Your task to perform on an android device: delete the emails in spam in the gmail app Image 0: 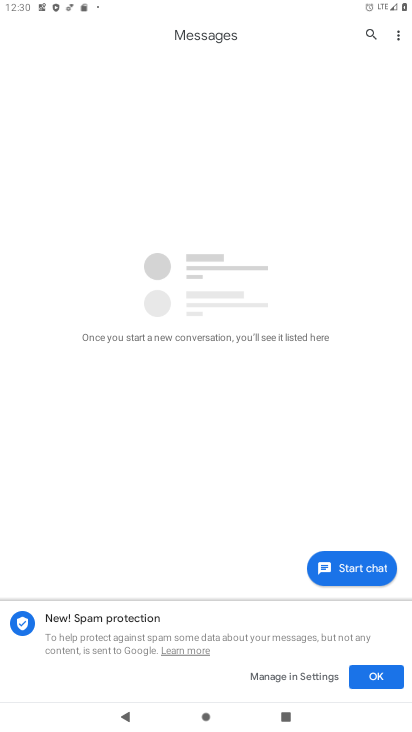
Step 0: press home button
Your task to perform on an android device: delete the emails in spam in the gmail app Image 1: 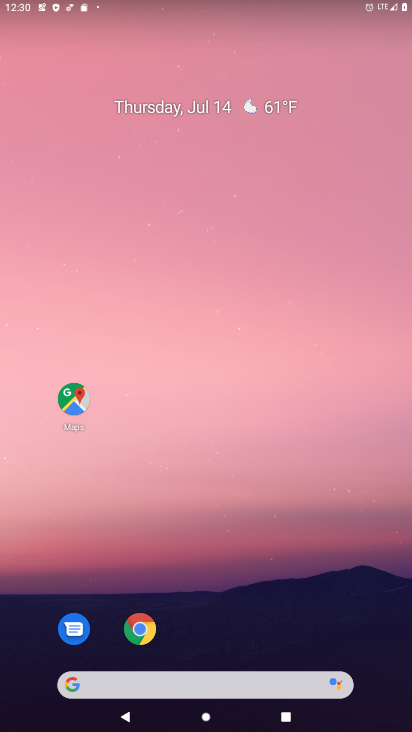
Step 1: drag from (286, 548) to (283, 102)
Your task to perform on an android device: delete the emails in spam in the gmail app Image 2: 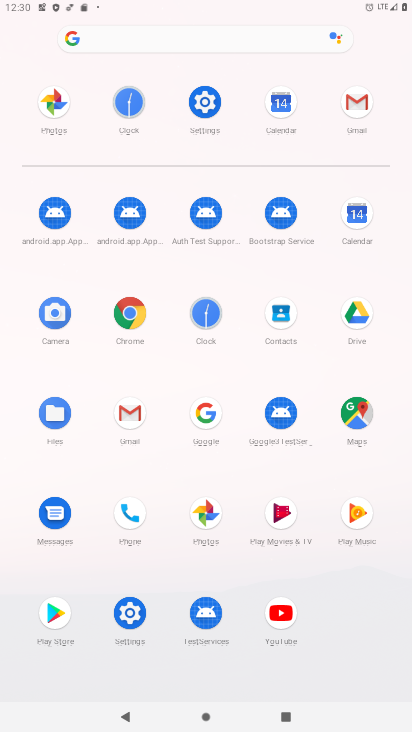
Step 2: click (352, 102)
Your task to perform on an android device: delete the emails in spam in the gmail app Image 3: 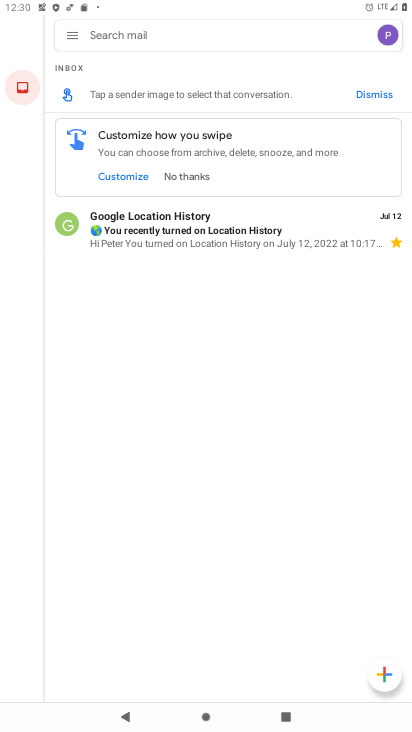
Step 3: click (70, 29)
Your task to perform on an android device: delete the emails in spam in the gmail app Image 4: 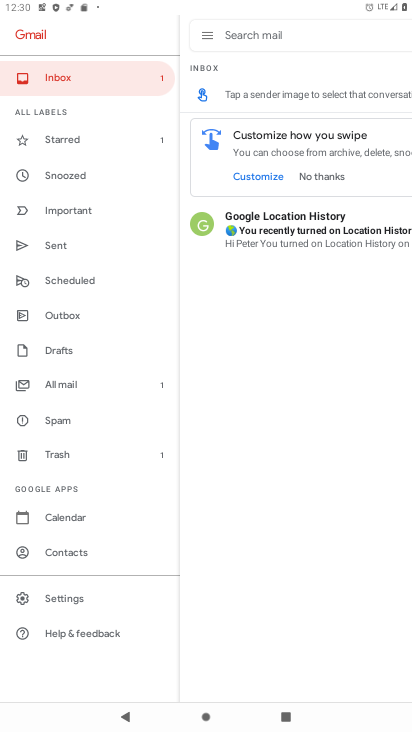
Step 4: click (60, 421)
Your task to perform on an android device: delete the emails in spam in the gmail app Image 5: 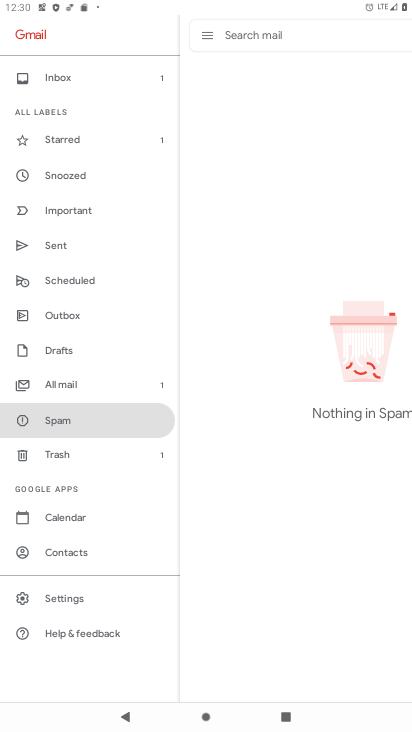
Step 5: task complete